Your task to perform on an android device: Open the calendar app, open the side menu, and click the "Day" option Image 0: 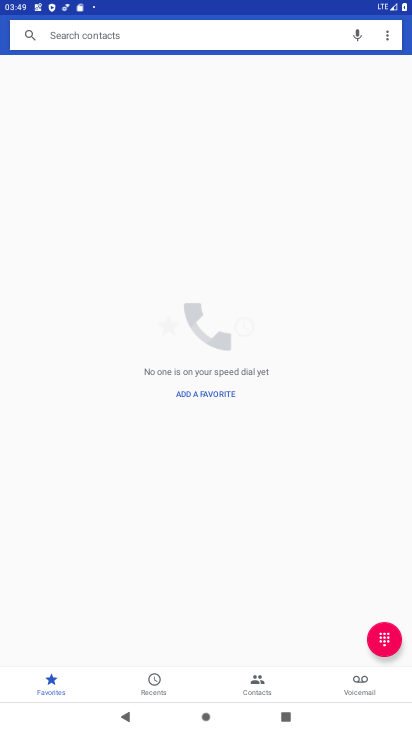
Step 0: press home button
Your task to perform on an android device: Open the calendar app, open the side menu, and click the "Day" option Image 1: 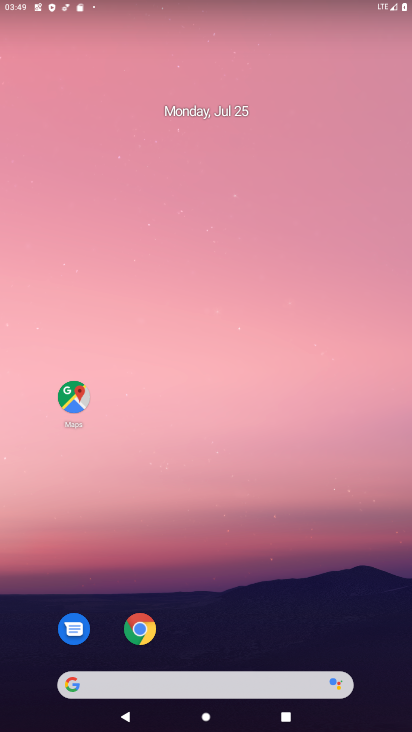
Step 1: drag from (250, 656) to (245, 10)
Your task to perform on an android device: Open the calendar app, open the side menu, and click the "Day" option Image 2: 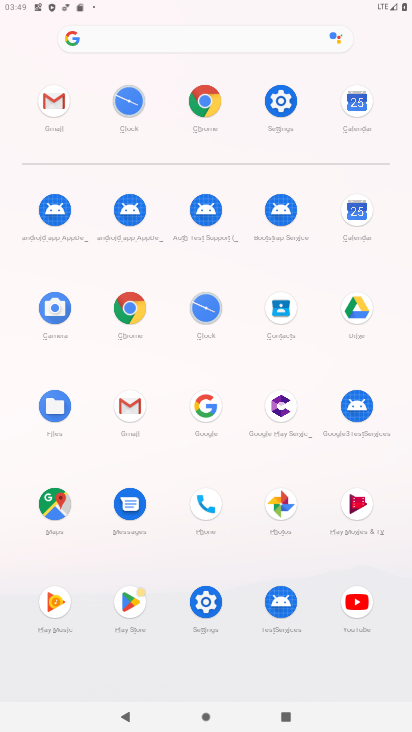
Step 2: click (355, 101)
Your task to perform on an android device: Open the calendar app, open the side menu, and click the "Day" option Image 3: 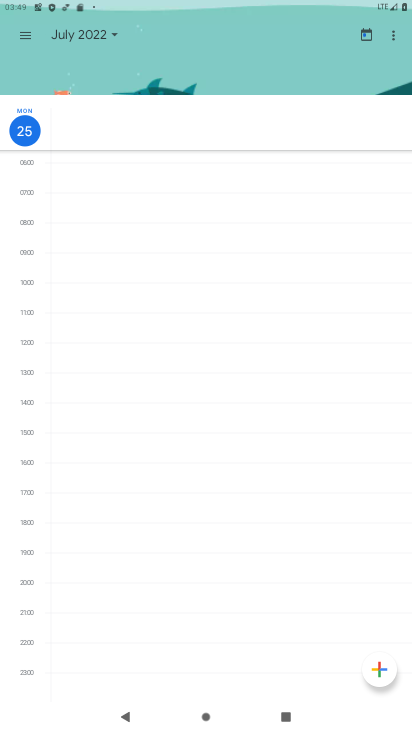
Step 3: click (25, 39)
Your task to perform on an android device: Open the calendar app, open the side menu, and click the "Day" option Image 4: 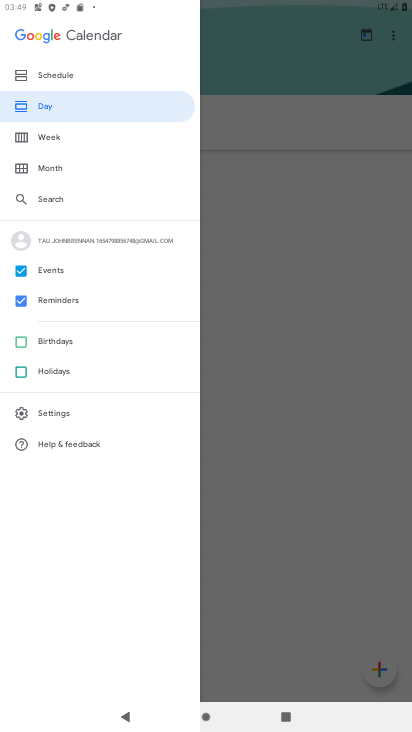
Step 4: click (33, 112)
Your task to perform on an android device: Open the calendar app, open the side menu, and click the "Day" option Image 5: 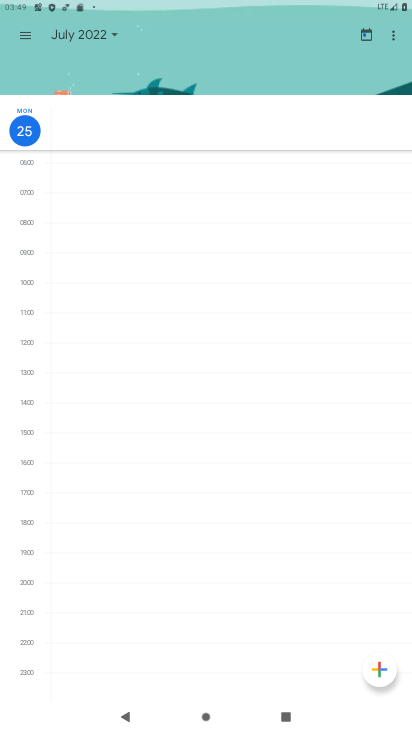
Step 5: task complete